Your task to perform on an android device: Open settings on Google Maps Image 0: 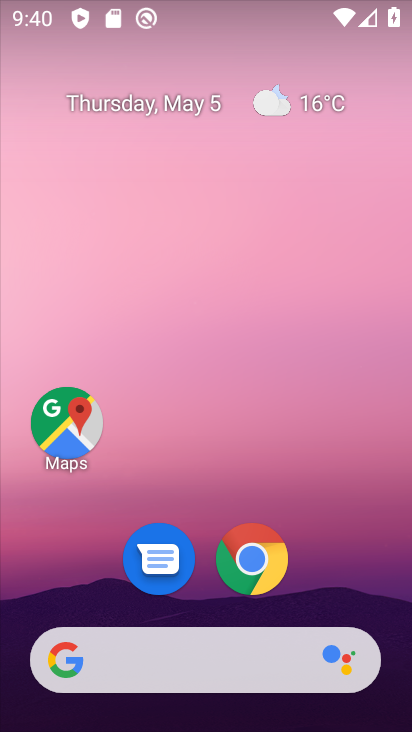
Step 0: drag from (217, 604) to (219, 140)
Your task to perform on an android device: Open settings on Google Maps Image 1: 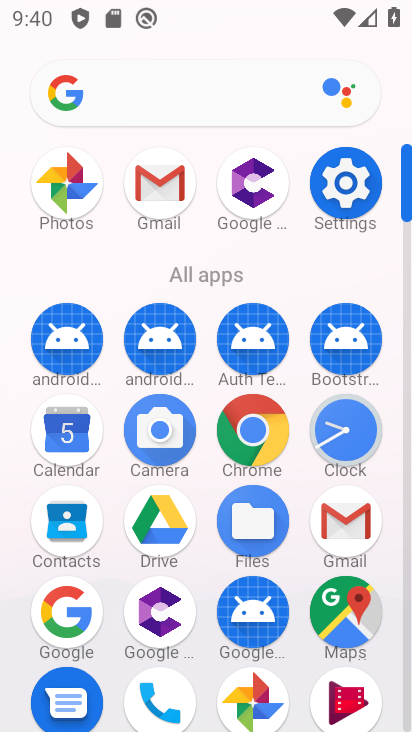
Step 1: click (320, 209)
Your task to perform on an android device: Open settings on Google Maps Image 2: 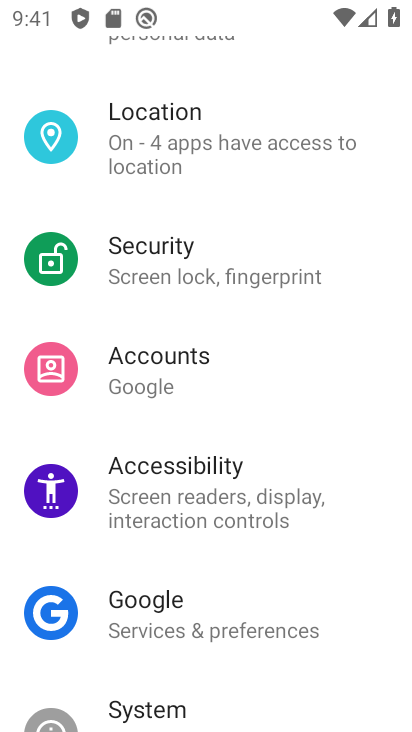
Step 2: press home button
Your task to perform on an android device: Open settings on Google Maps Image 3: 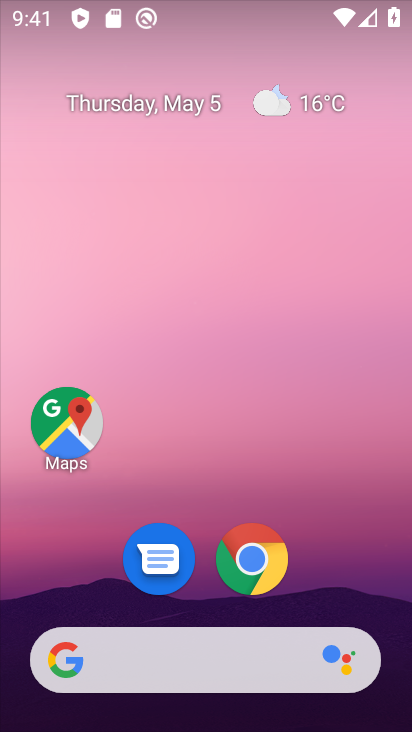
Step 3: click (80, 420)
Your task to perform on an android device: Open settings on Google Maps Image 4: 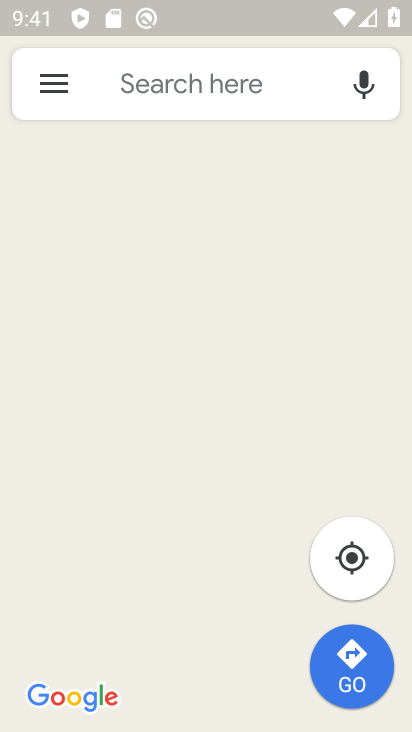
Step 4: click (63, 91)
Your task to perform on an android device: Open settings on Google Maps Image 5: 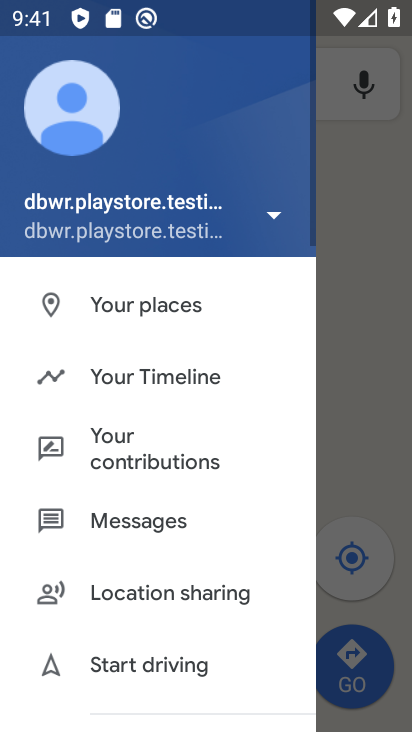
Step 5: drag from (117, 592) to (184, 170)
Your task to perform on an android device: Open settings on Google Maps Image 6: 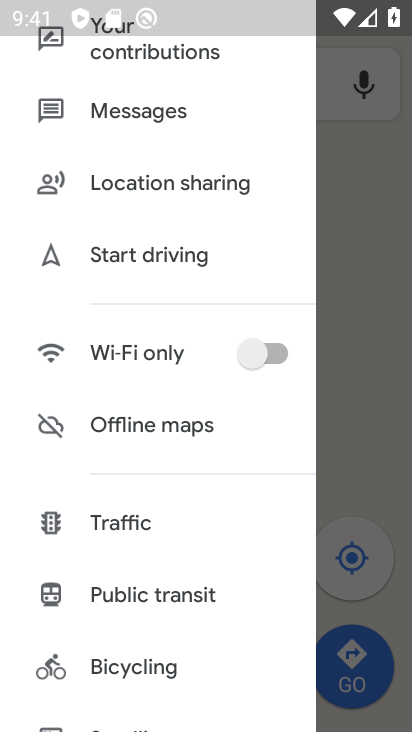
Step 6: drag from (134, 609) to (197, 130)
Your task to perform on an android device: Open settings on Google Maps Image 7: 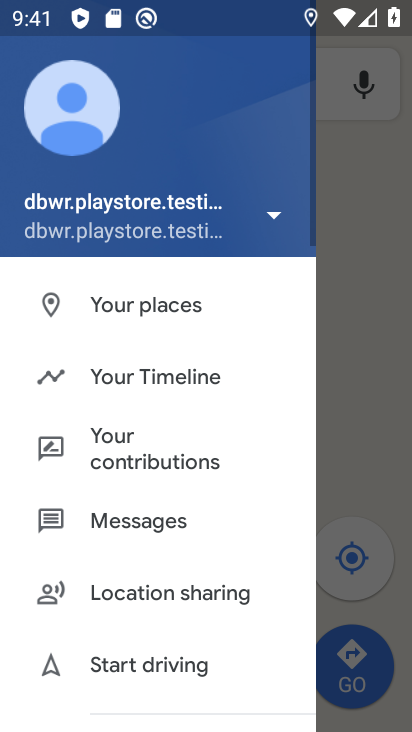
Step 7: drag from (141, 655) to (202, 119)
Your task to perform on an android device: Open settings on Google Maps Image 8: 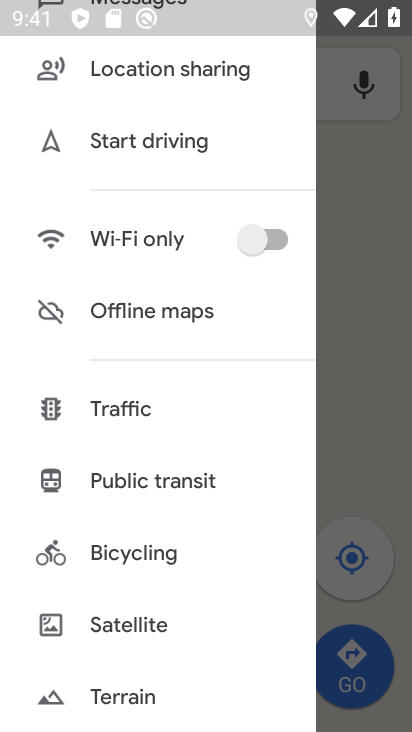
Step 8: drag from (154, 655) to (192, 128)
Your task to perform on an android device: Open settings on Google Maps Image 9: 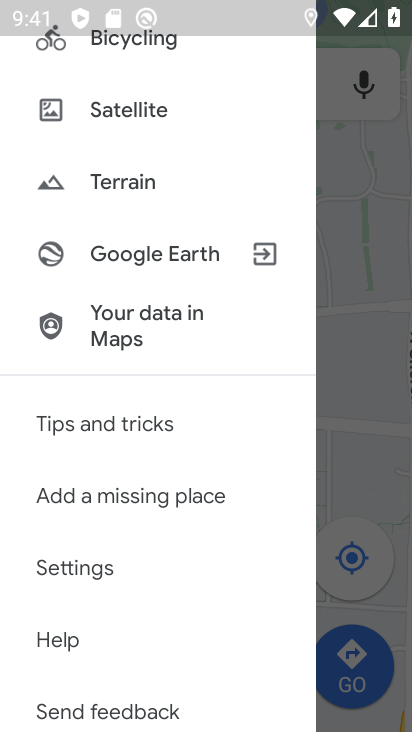
Step 9: click (116, 570)
Your task to perform on an android device: Open settings on Google Maps Image 10: 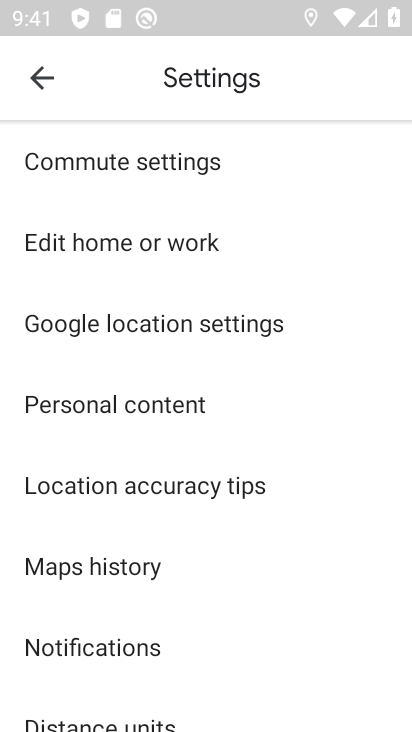
Step 10: task complete